Your task to perform on an android device: Open eBay Image 0: 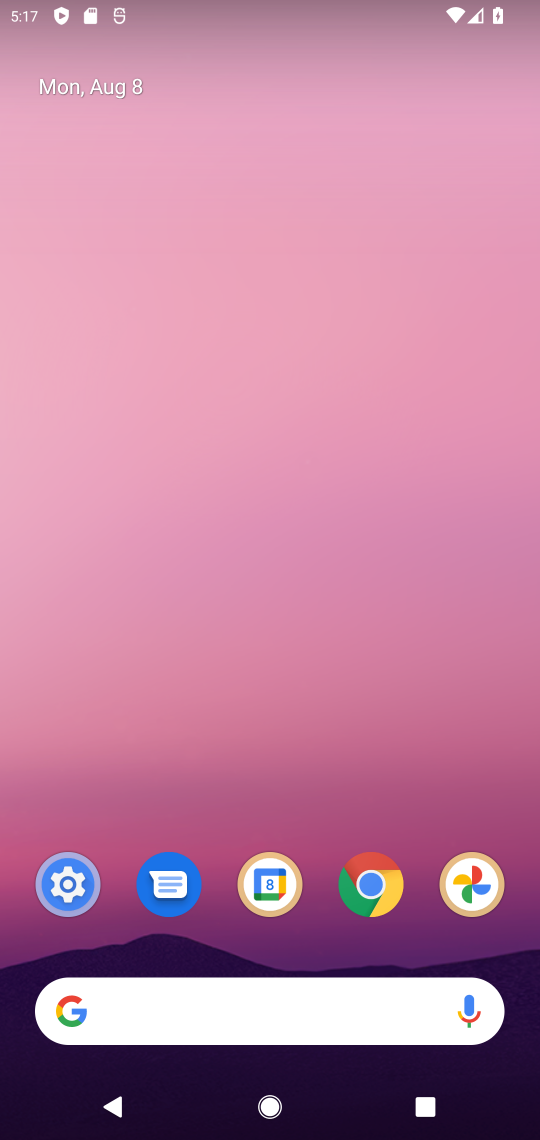
Step 0: click (367, 868)
Your task to perform on an android device: Open eBay Image 1: 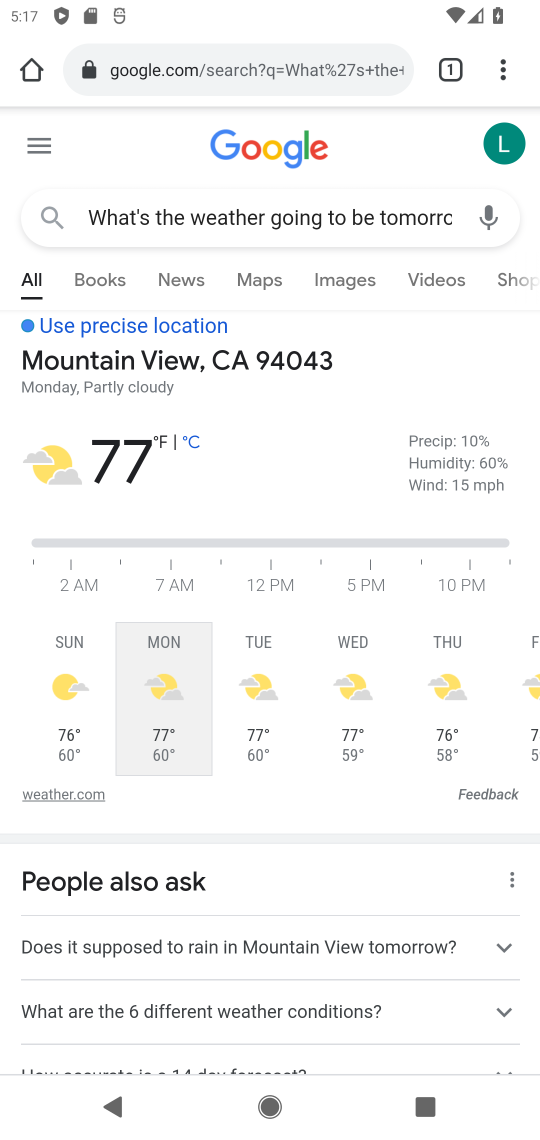
Step 1: click (452, 90)
Your task to perform on an android device: Open eBay Image 2: 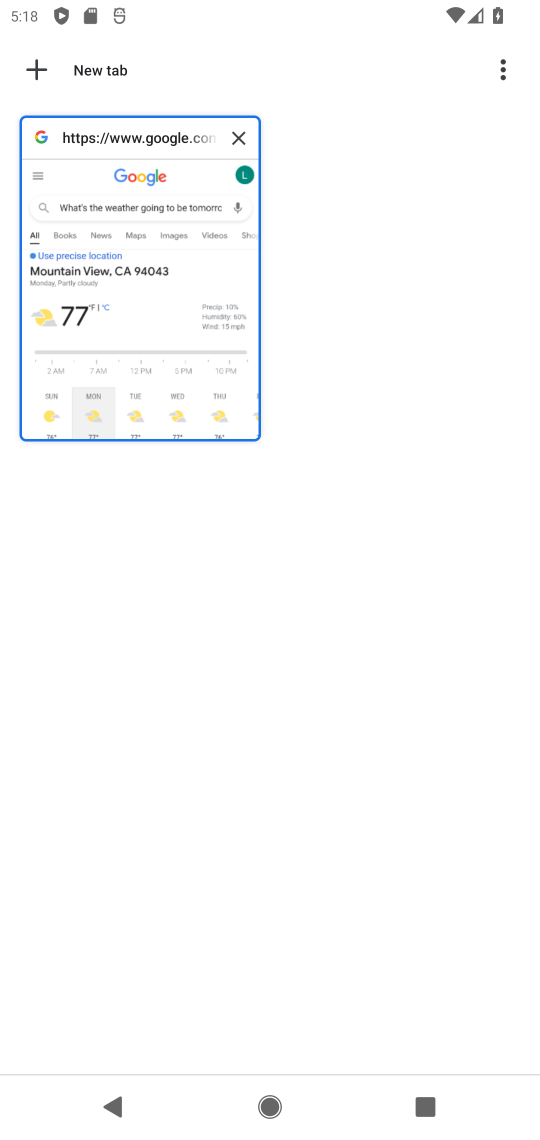
Step 2: click (82, 73)
Your task to perform on an android device: Open eBay Image 3: 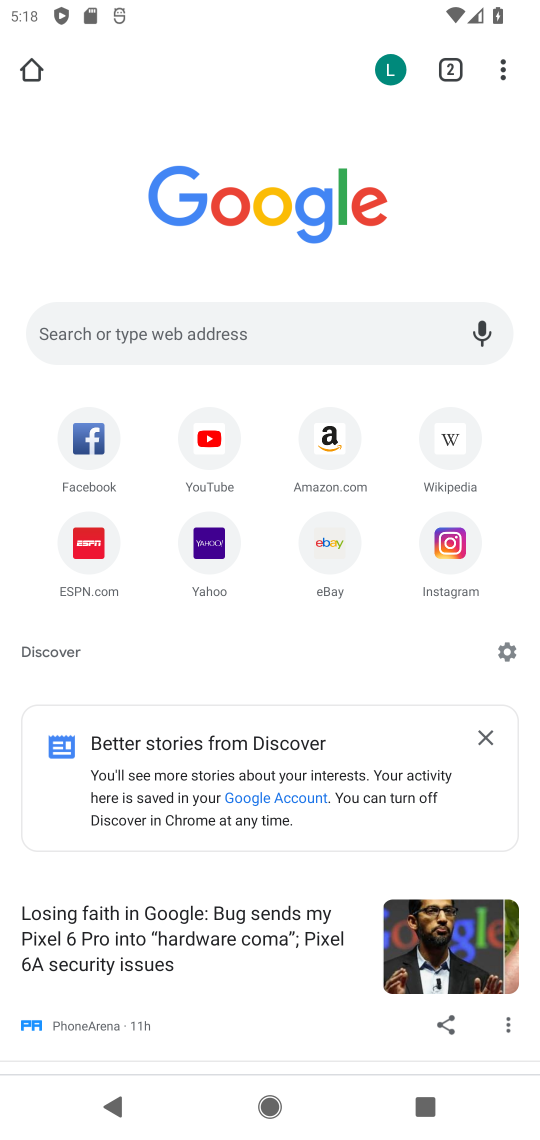
Step 3: click (342, 541)
Your task to perform on an android device: Open eBay Image 4: 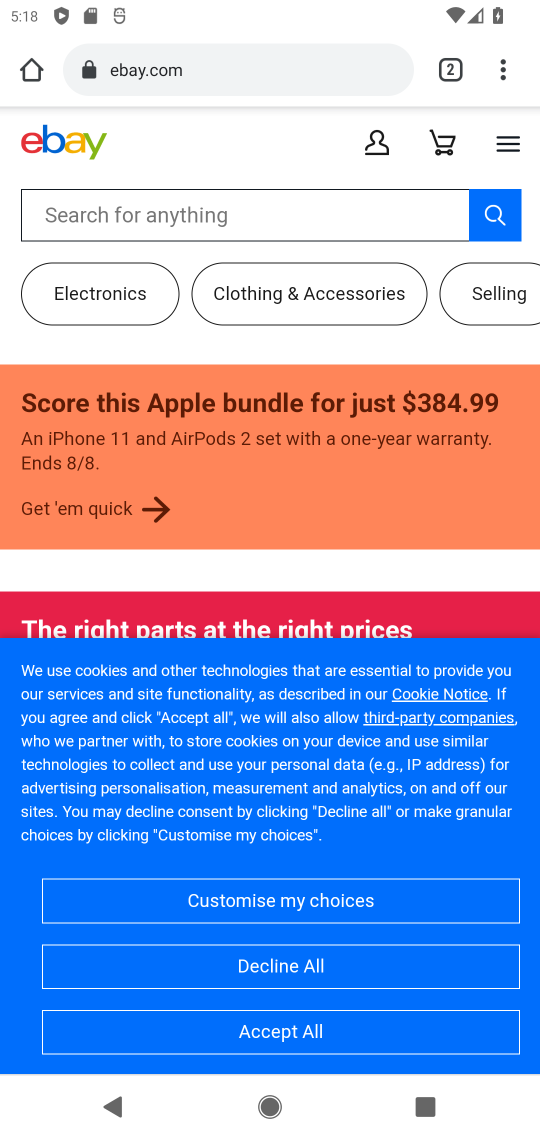
Step 4: task complete